Your task to perform on an android device: Open calendar and show me the first week of next month Image 0: 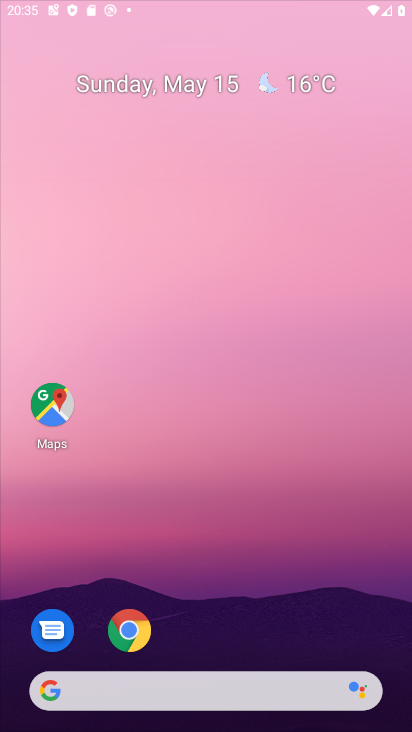
Step 0: drag from (261, 601) to (289, 17)
Your task to perform on an android device: Open calendar and show me the first week of next month Image 1: 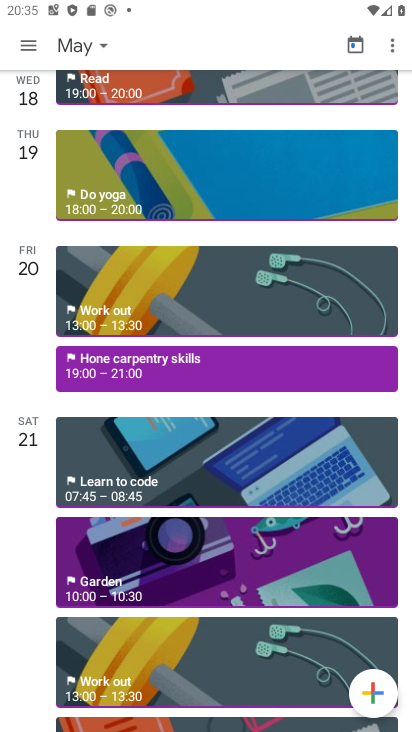
Step 1: press home button
Your task to perform on an android device: Open calendar and show me the first week of next month Image 2: 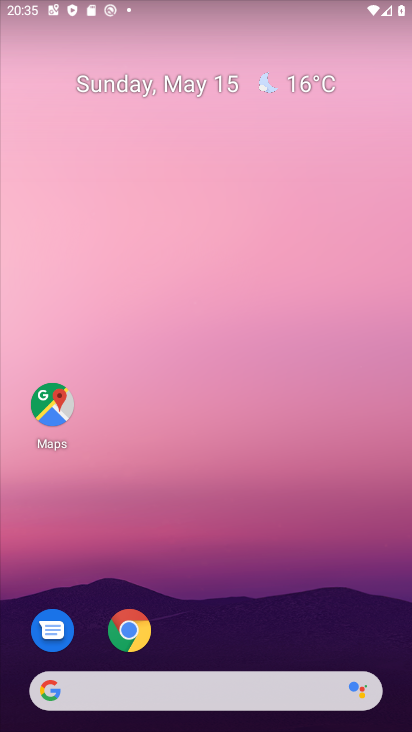
Step 2: drag from (157, 567) to (276, 6)
Your task to perform on an android device: Open calendar and show me the first week of next month Image 3: 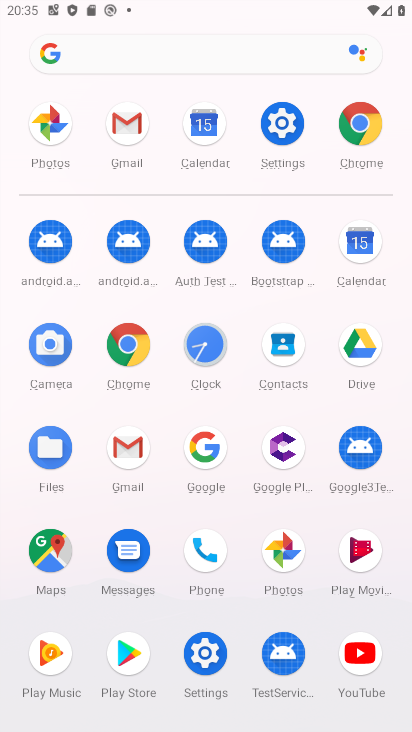
Step 3: click (372, 253)
Your task to perform on an android device: Open calendar and show me the first week of next month Image 4: 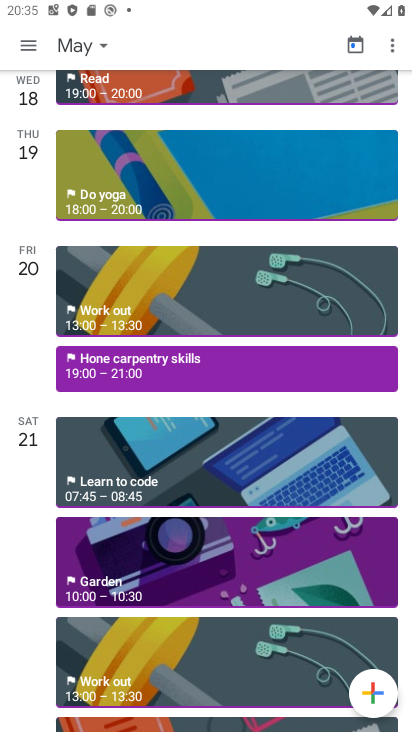
Step 4: click (37, 52)
Your task to perform on an android device: Open calendar and show me the first week of next month Image 5: 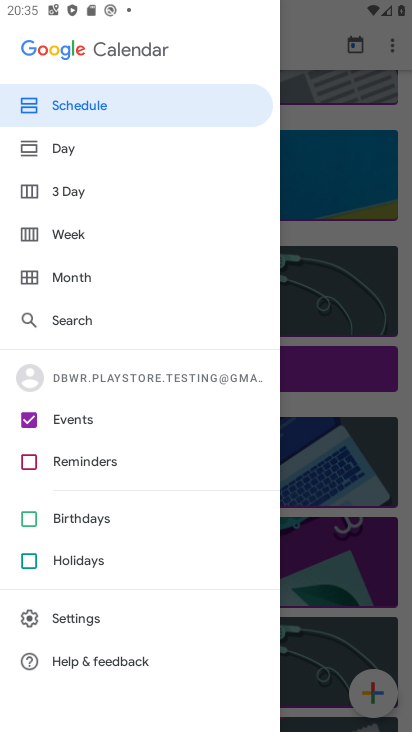
Step 5: click (75, 238)
Your task to perform on an android device: Open calendar and show me the first week of next month Image 6: 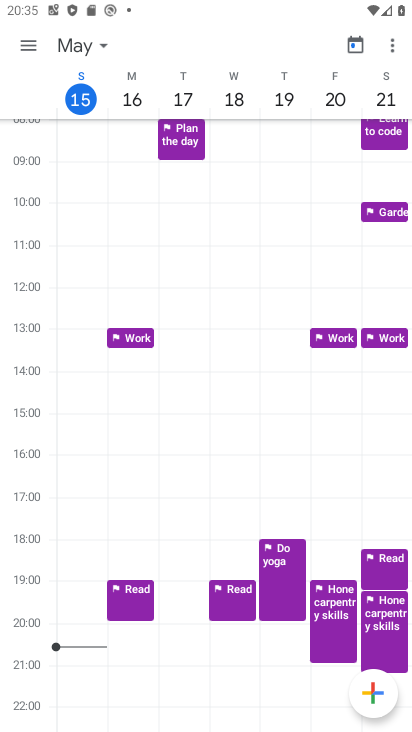
Step 6: task complete